Your task to perform on an android device: Is it going to rain today? Image 0: 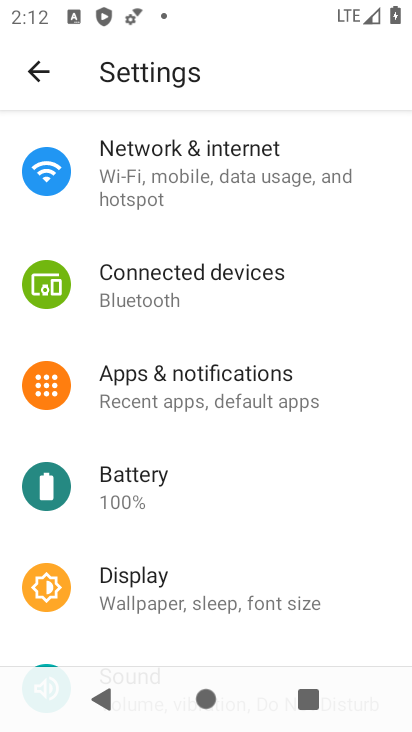
Step 0: press home button
Your task to perform on an android device: Is it going to rain today? Image 1: 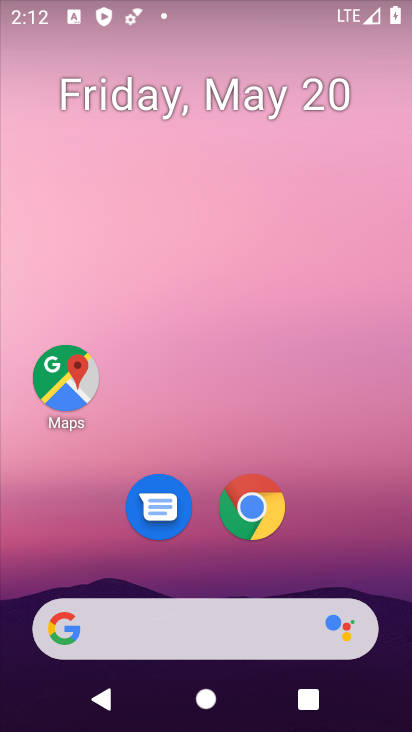
Step 1: click (181, 645)
Your task to perform on an android device: Is it going to rain today? Image 2: 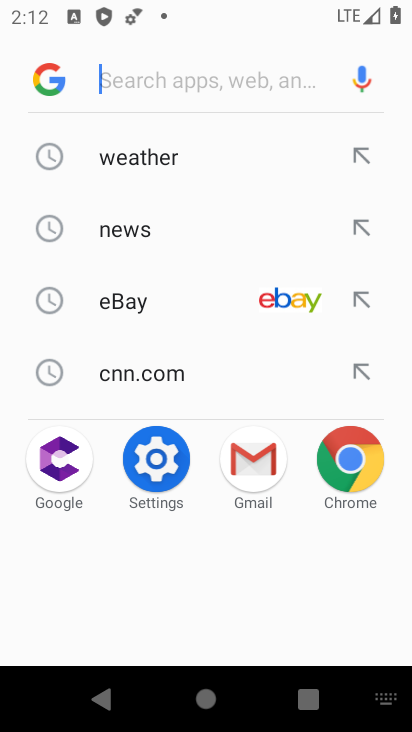
Step 2: click (215, 163)
Your task to perform on an android device: Is it going to rain today? Image 3: 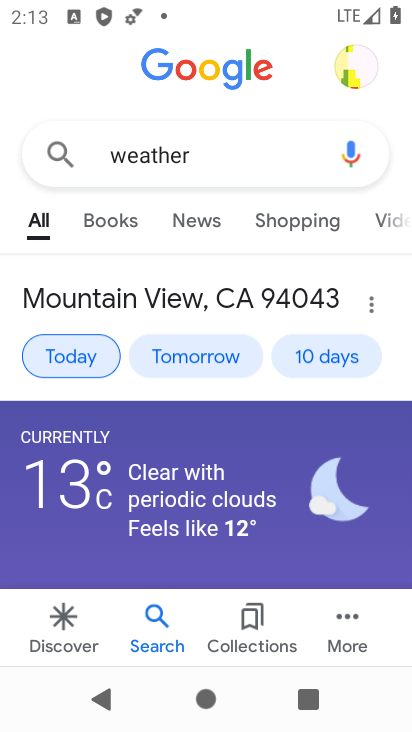
Step 3: task complete